Your task to perform on an android device: clear all cookies in the chrome app Image 0: 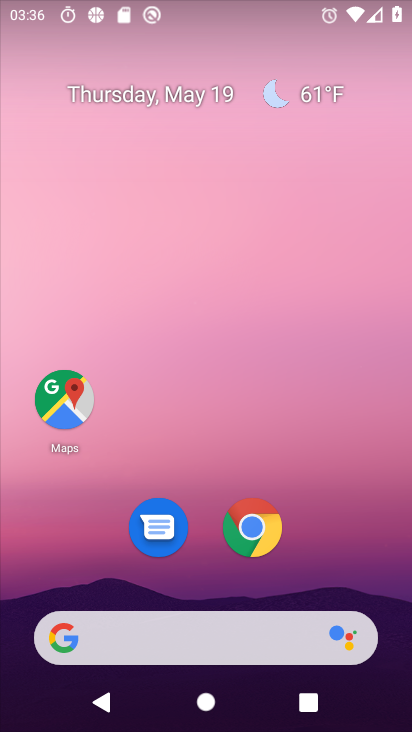
Step 0: click (253, 526)
Your task to perform on an android device: clear all cookies in the chrome app Image 1: 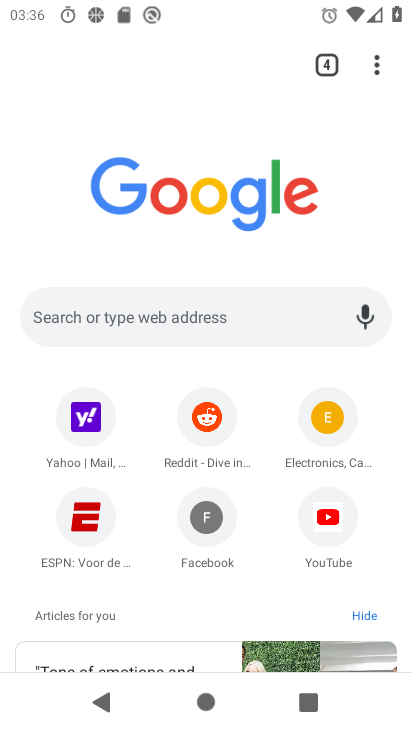
Step 1: drag from (375, 51) to (126, 351)
Your task to perform on an android device: clear all cookies in the chrome app Image 2: 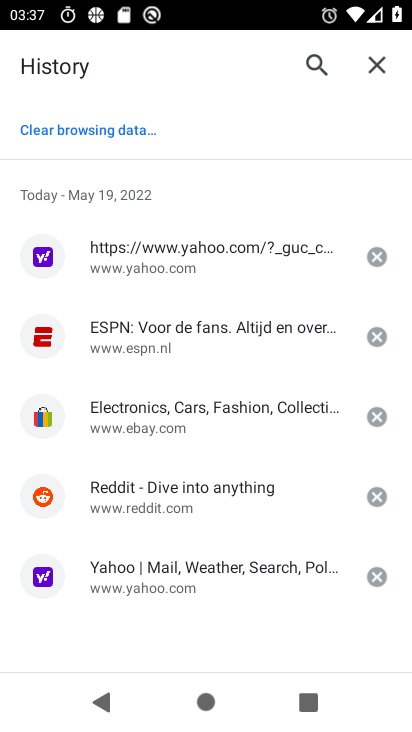
Step 2: click (81, 116)
Your task to perform on an android device: clear all cookies in the chrome app Image 3: 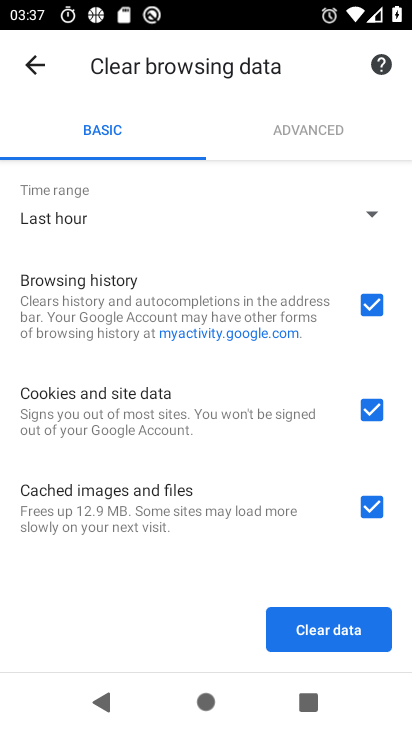
Step 3: click (374, 310)
Your task to perform on an android device: clear all cookies in the chrome app Image 4: 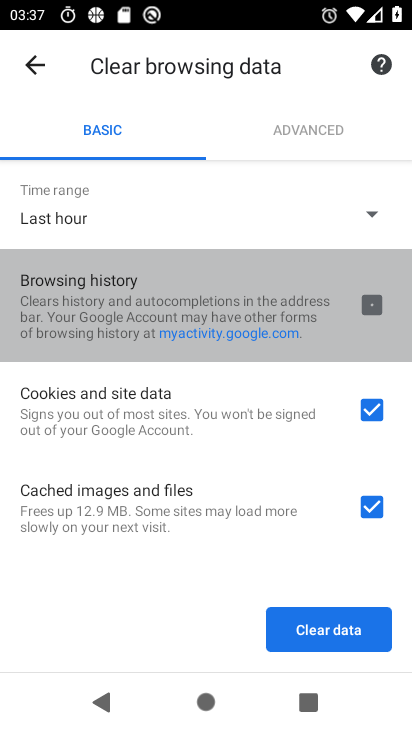
Step 4: click (383, 503)
Your task to perform on an android device: clear all cookies in the chrome app Image 5: 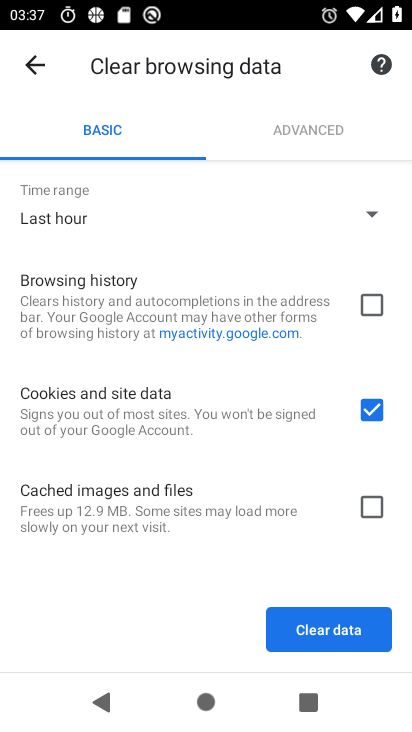
Step 5: click (311, 633)
Your task to perform on an android device: clear all cookies in the chrome app Image 6: 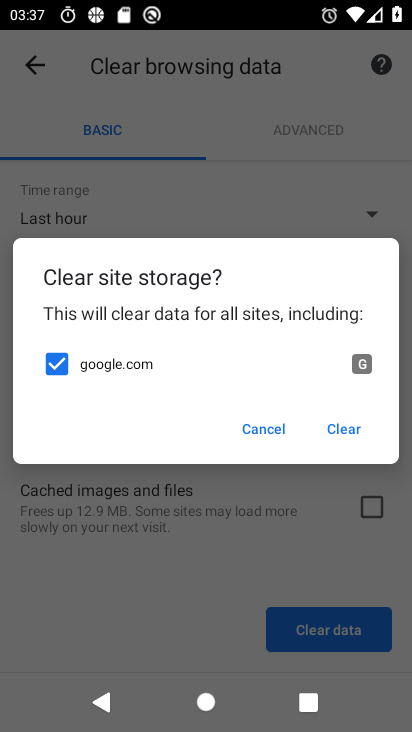
Step 6: click (346, 437)
Your task to perform on an android device: clear all cookies in the chrome app Image 7: 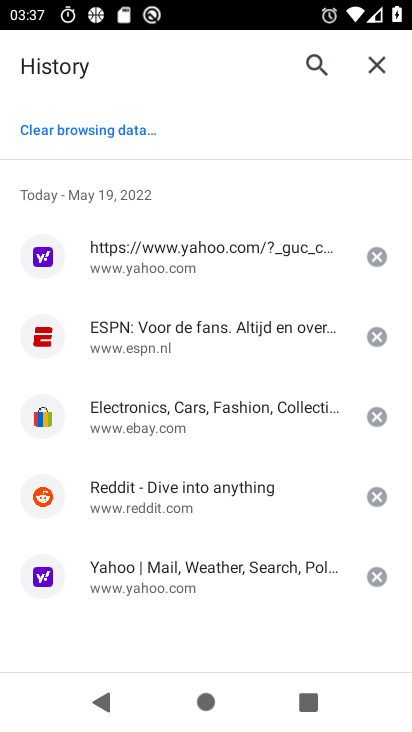
Step 7: task complete